Your task to perform on an android device: turn on sleep mode Image 0: 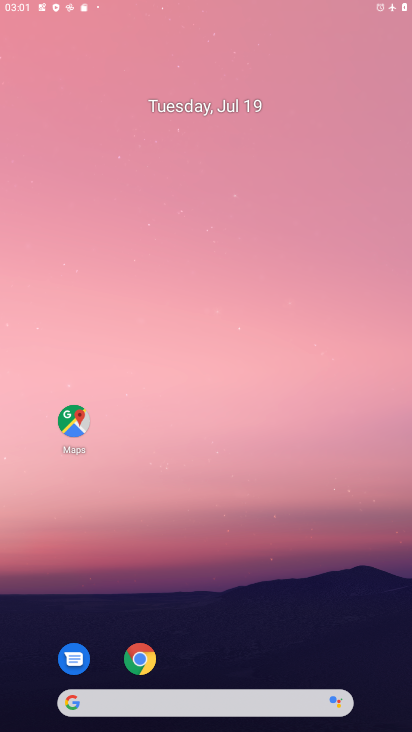
Step 0: press home button
Your task to perform on an android device: turn on sleep mode Image 1: 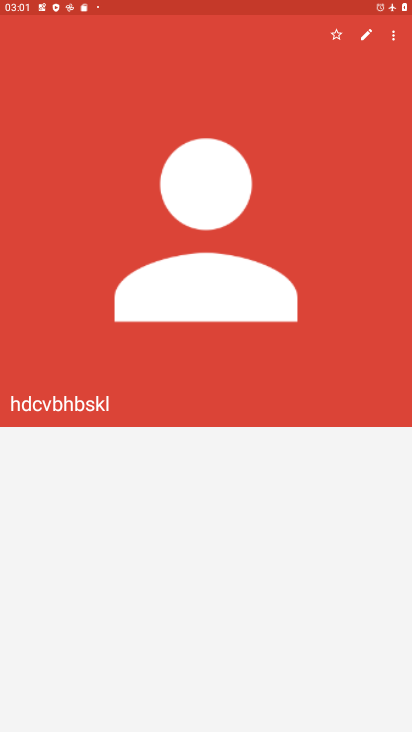
Step 1: drag from (273, 547) to (288, 62)
Your task to perform on an android device: turn on sleep mode Image 2: 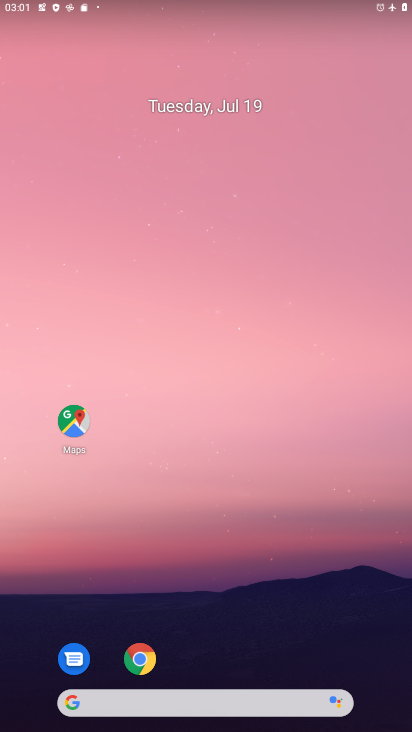
Step 2: drag from (302, 629) to (275, 145)
Your task to perform on an android device: turn on sleep mode Image 3: 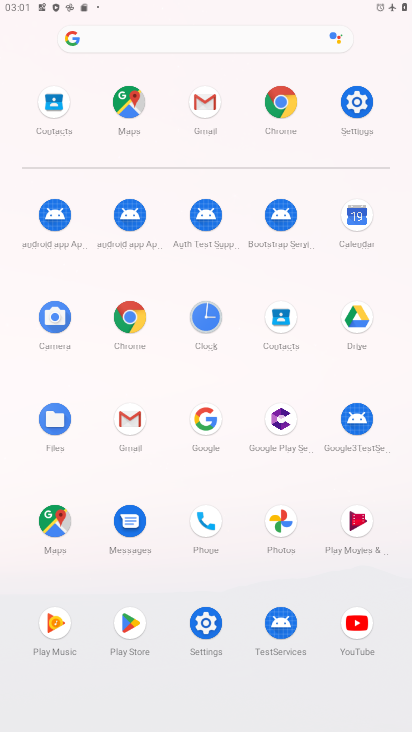
Step 3: click (215, 633)
Your task to perform on an android device: turn on sleep mode Image 4: 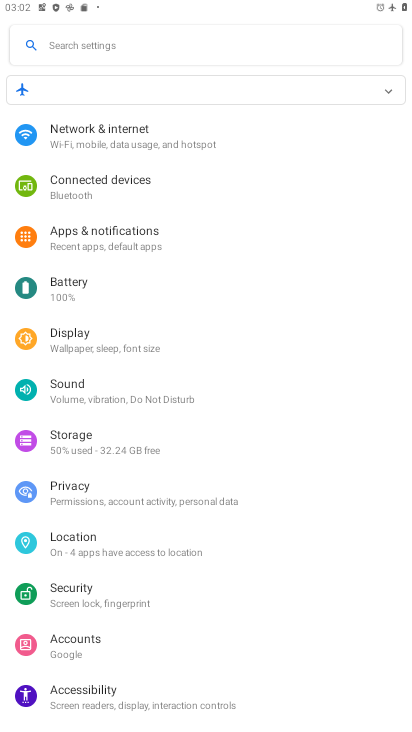
Step 4: click (79, 350)
Your task to perform on an android device: turn on sleep mode Image 5: 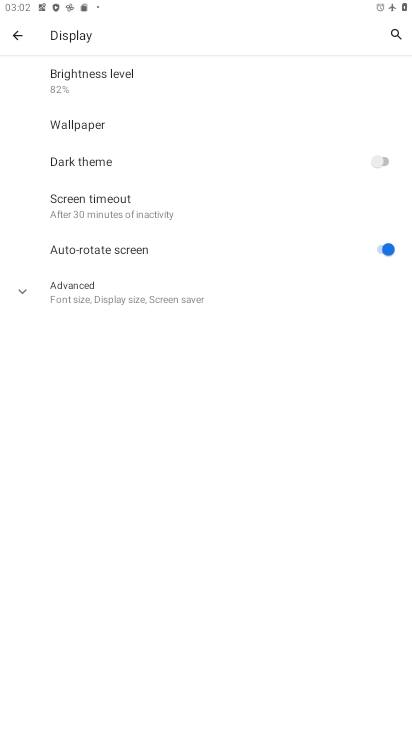
Step 5: task complete